Your task to perform on an android device: See recent photos Image 0: 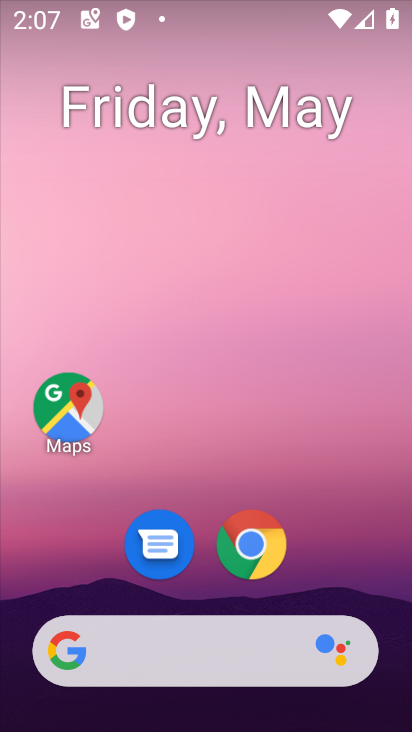
Step 0: drag from (211, 588) to (210, 165)
Your task to perform on an android device: See recent photos Image 1: 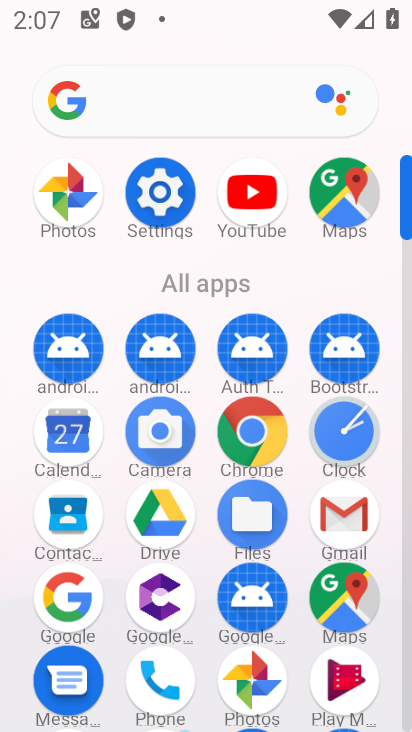
Step 1: click (76, 216)
Your task to perform on an android device: See recent photos Image 2: 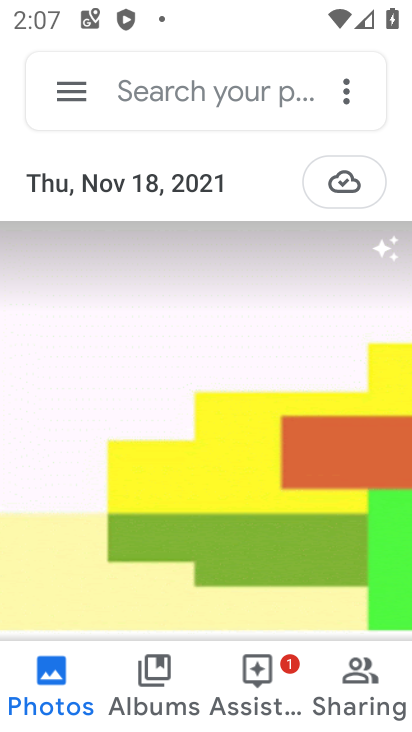
Step 2: task complete